Your task to perform on an android device: make emails show in primary in the gmail app Image 0: 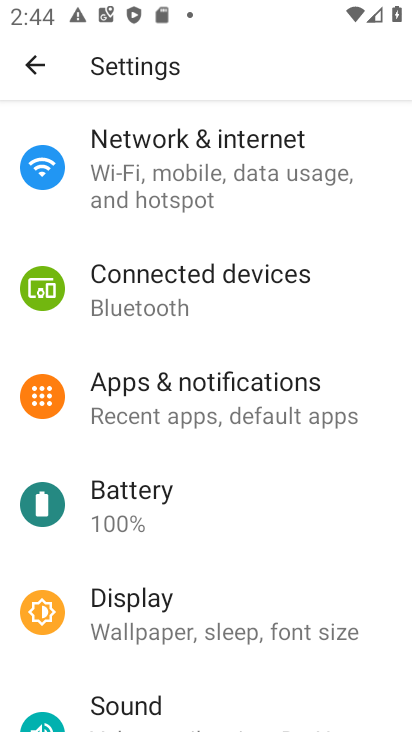
Step 0: press home button
Your task to perform on an android device: make emails show in primary in the gmail app Image 1: 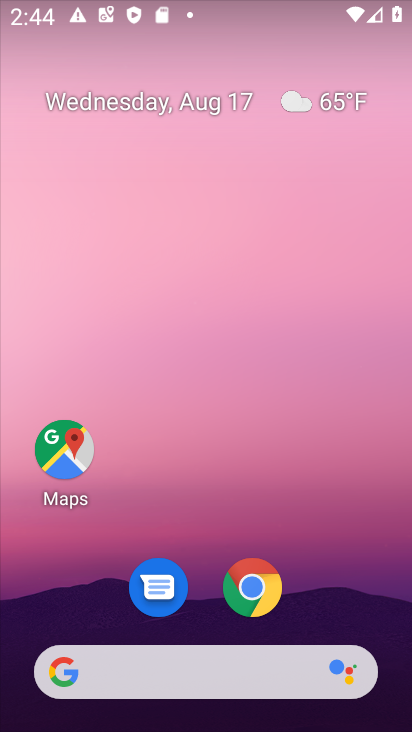
Step 1: drag from (36, 562) to (211, 32)
Your task to perform on an android device: make emails show in primary in the gmail app Image 2: 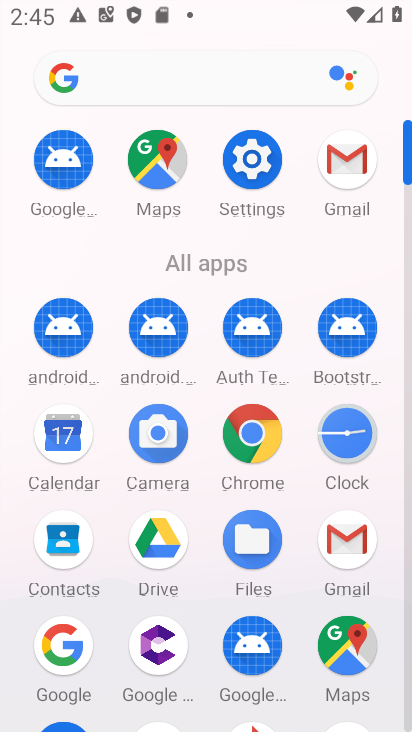
Step 2: click (348, 534)
Your task to perform on an android device: make emails show in primary in the gmail app Image 3: 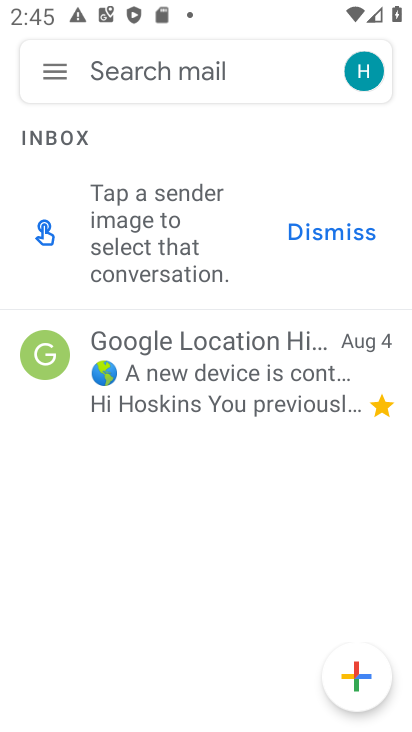
Step 3: click (56, 72)
Your task to perform on an android device: make emails show in primary in the gmail app Image 4: 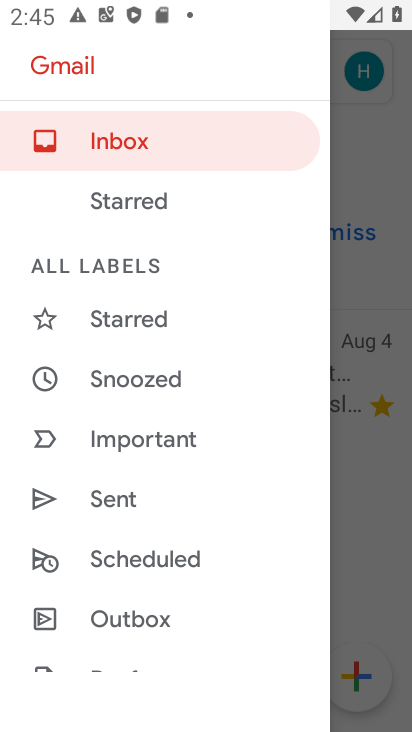
Step 4: drag from (39, 511) to (128, 161)
Your task to perform on an android device: make emails show in primary in the gmail app Image 5: 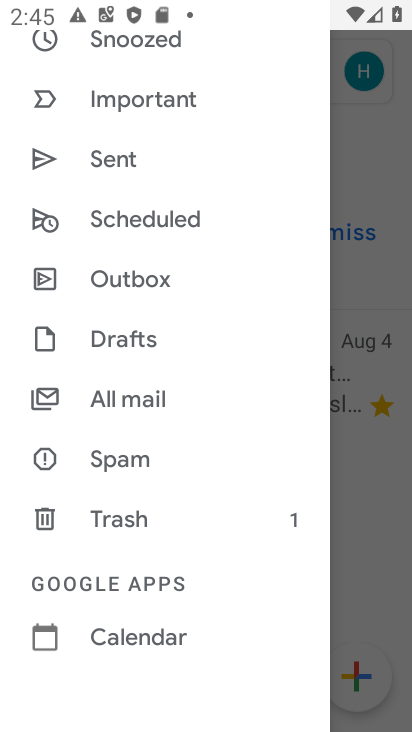
Step 5: drag from (8, 594) to (184, 117)
Your task to perform on an android device: make emails show in primary in the gmail app Image 6: 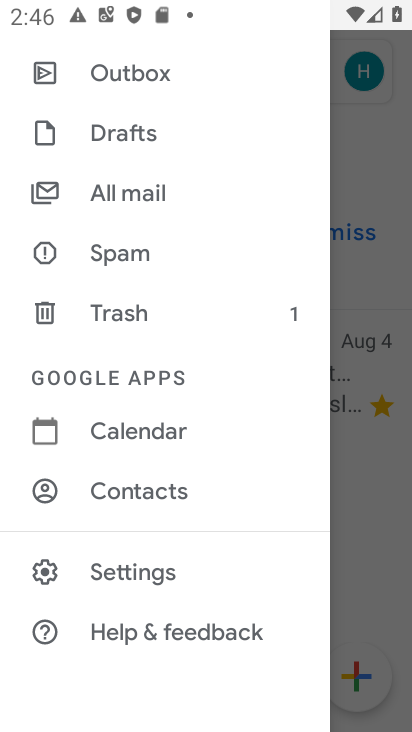
Step 6: click (94, 577)
Your task to perform on an android device: make emails show in primary in the gmail app Image 7: 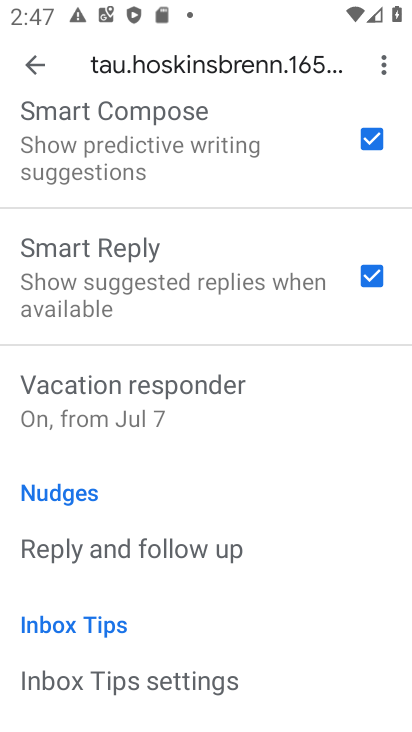
Step 7: task complete